Your task to perform on an android device: Is it going to rain tomorrow? Image 0: 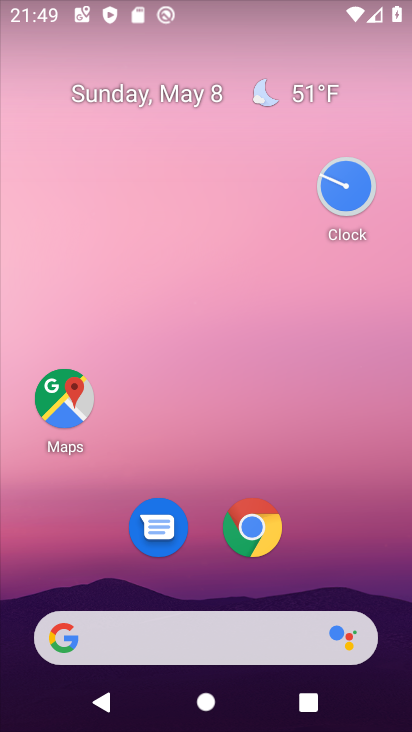
Step 0: drag from (322, 562) to (364, 355)
Your task to perform on an android device: Is it going to rain tomorrow? Image 1: 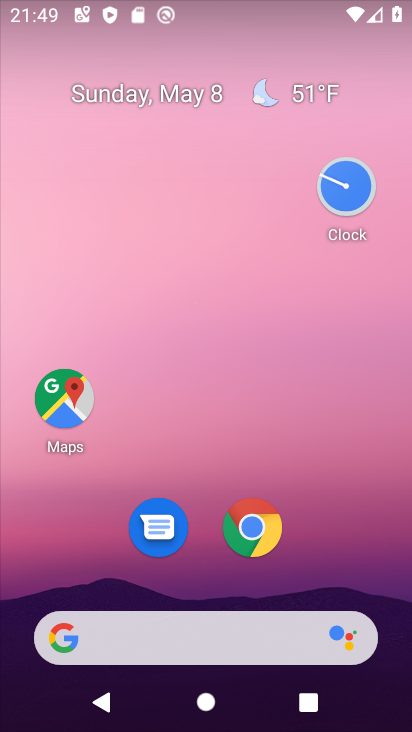
Step 1: click (264, 80)
Your task to perform on an android device: Is it going to rain tomorrow? Image 2: 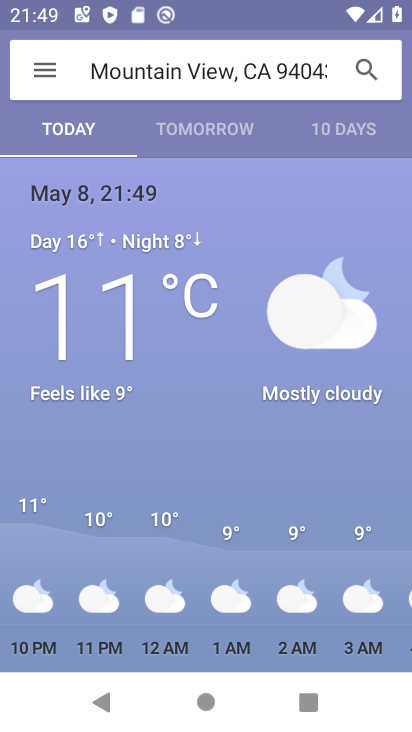
Step 2: click (186, 118)
Your task to perform on an android device: Is it going to rain tomorrow? Image 3: 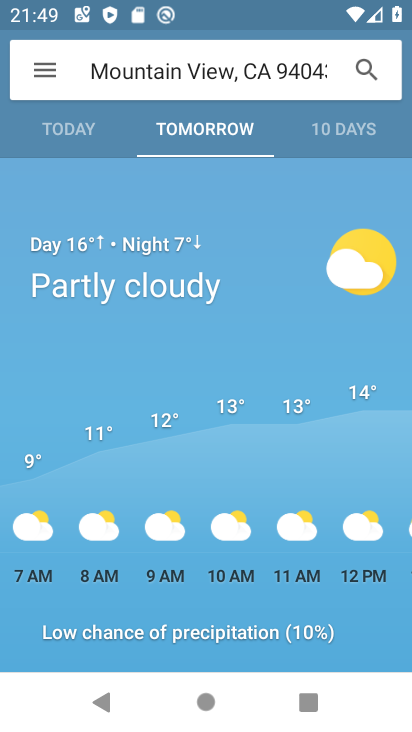
Step 3: task complete